Your task to perform on an android device: set default search engine in the chrome app Image 0: 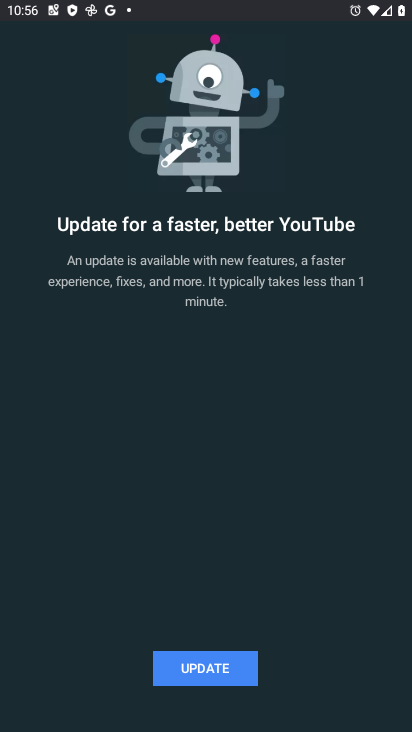
Step 0: press home button
Your task to perform on an android device: set default search engine in the chrome app Image 1: 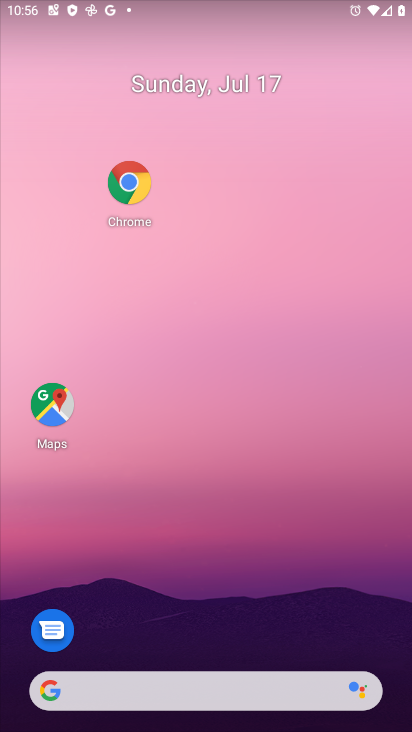
Step 1: click (40, 402)
Your task to perform on an android device: set default search engine in the chrome app Image 2: 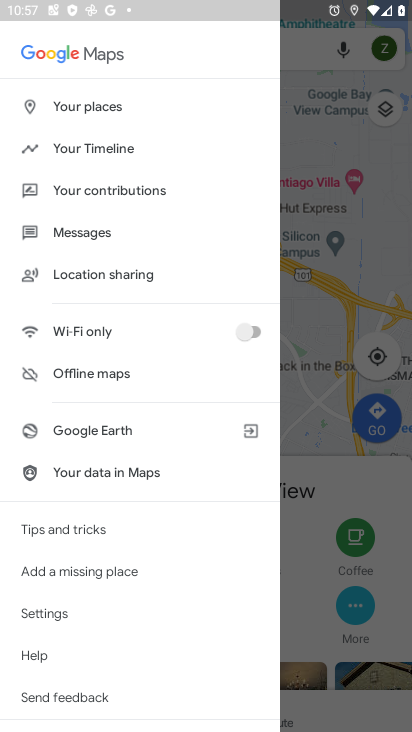
Step 2: press home button
Your task to perform on an android device: set default search engine in the chrome app Image 3: 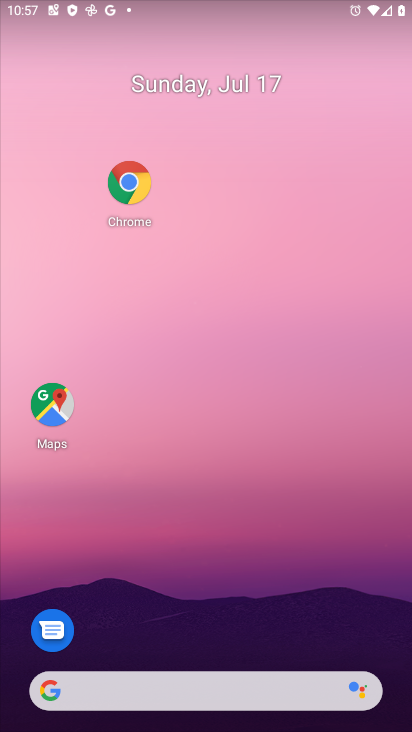
Step 3: drag from (187, 493) to (178, 31)
Your task to perform on an android device: set default search engine in the chrome app Image 4: 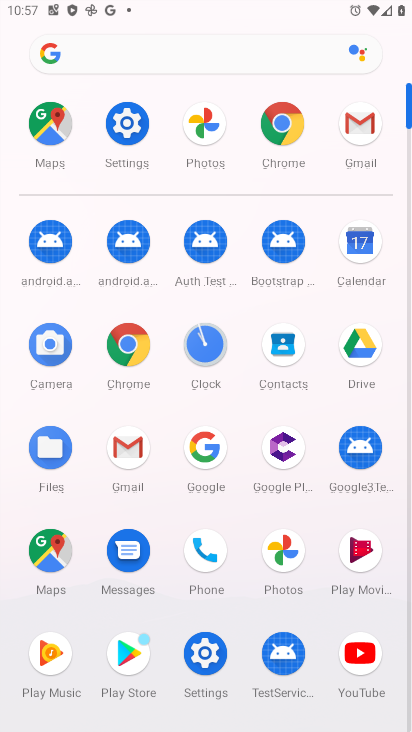
Step 4: click (289, 148)
Your task to perform on an android device: set default search engine in the chrome app Image 5: 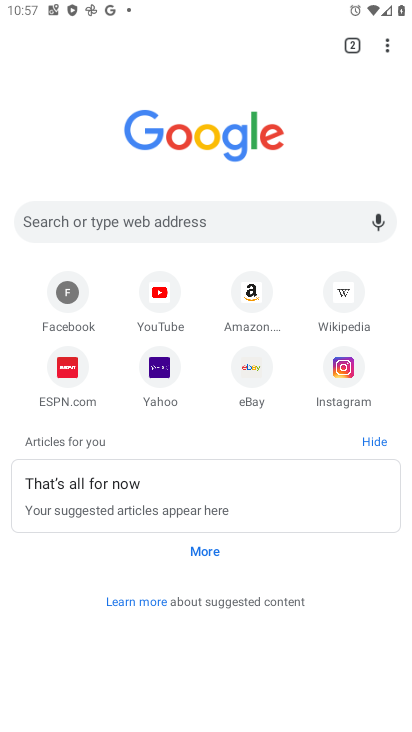
Step 5: click (389, 39)
Your task to perform on an android device: set default search engine in the chrome app Image 6: 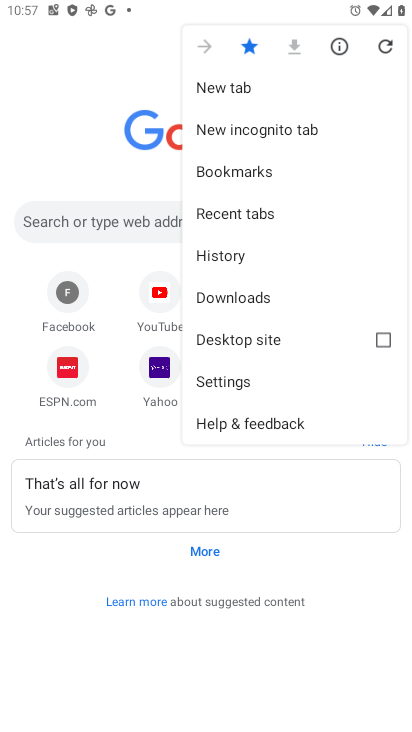
Step 6: click (224, 376)
Your task to perform on an android device: set default search engine in the chrome app Image 7: 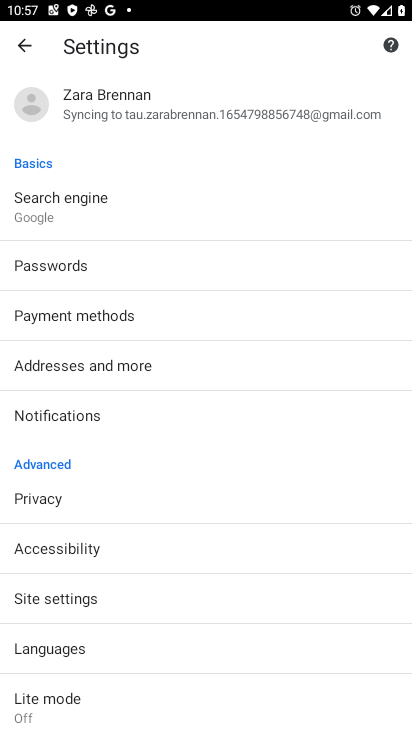
Step 7: click (73, 206)
Your task to perform on an android device: set default search engine in the chrome app Image 8: 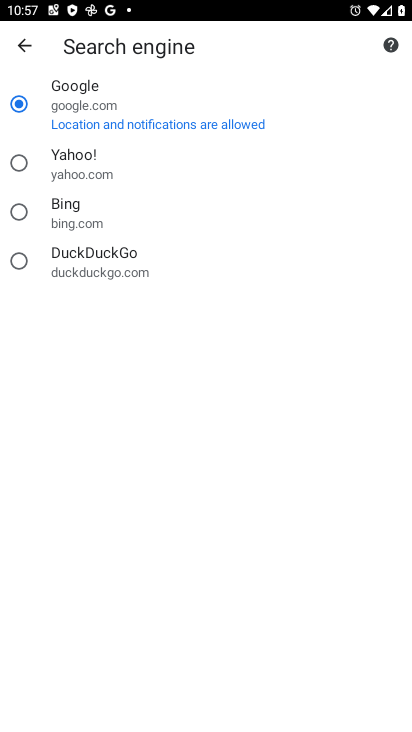
Step 8: click (28, 161)
Your task to perform on an android device: set default search engine in the chrome app Image 9: 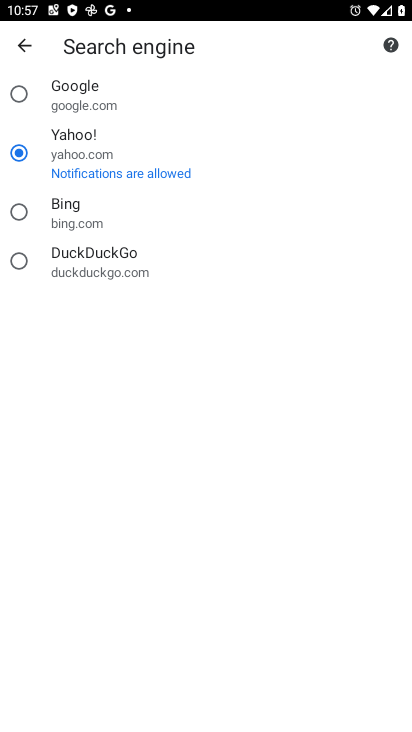
Step 9: task complete